Your task to perform on an android device: Open the calendar app, open the side menu, and click the "Day" option Image 0: 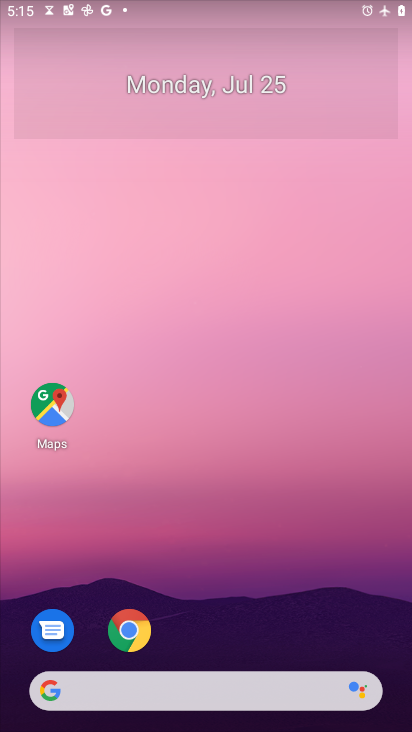
Step 0: drag from (175, 680) to (259, 143)
Your task to perform on an android device: Open the calendar app, open the side menu, and click the "Day" option Image 1: 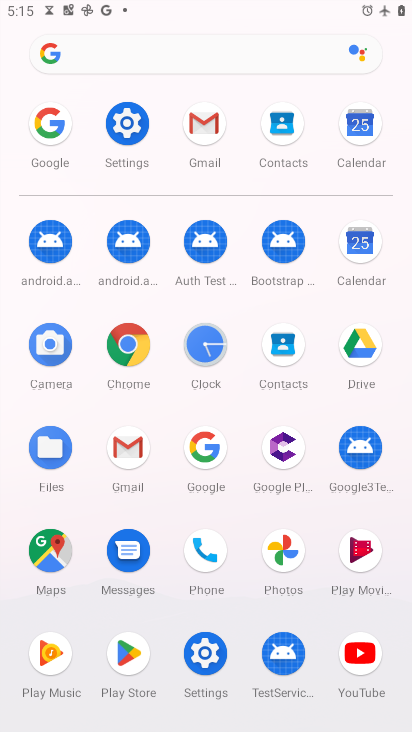
Step 1: click (358, 243)
Your task to perform on an android device: Open the calendar app, open the side menu, and click the "Day" option Image 2: 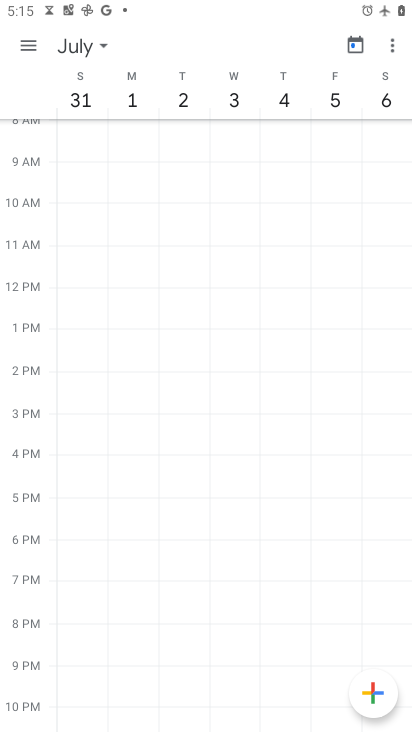
Step 2: click (31, 43)
Your task to perform on an android device: Open the calendar app, open the side menu, and click the "Day" option Image 3: 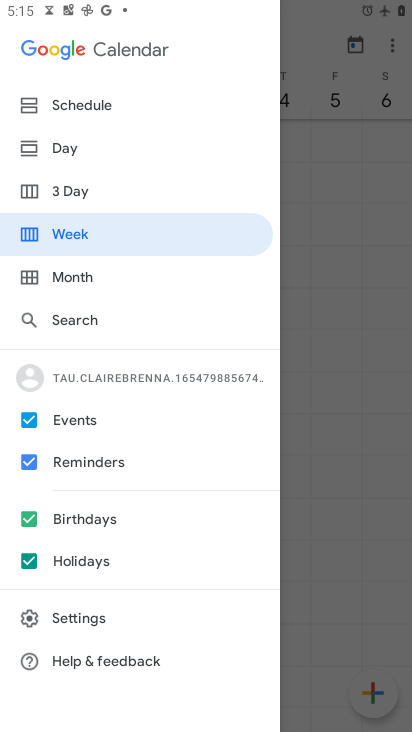
Step 3: click (56, 135)
Your task to perform on an android device: Open the calendar app, open the side menu, and click the "Day" option Image 4: 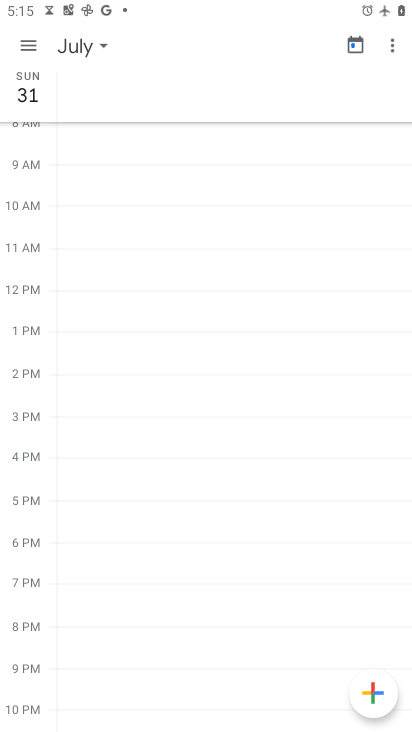
Step 4: task complete